Your task to perform on an android device: Search for Italian restaurants on Maps Image 0: 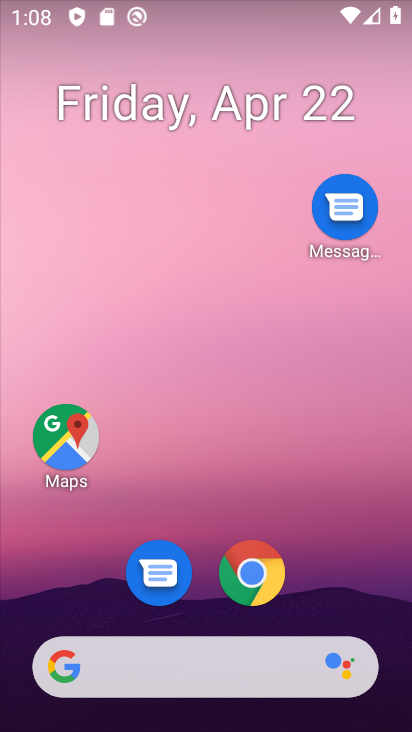
Step 0: click (70, 462)
Your task to perform on an android device: Search for Italian restaurants on Maps Image 1: 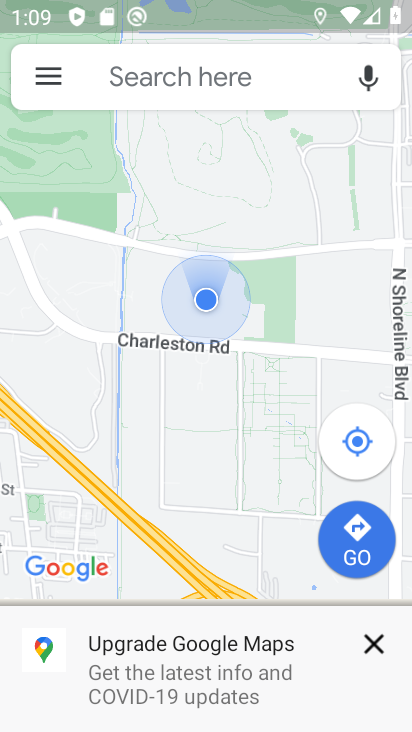
Step 1: click (212, 82)
Your task to perform on an android device: Search for Italian restaurants on Maps Image 2: 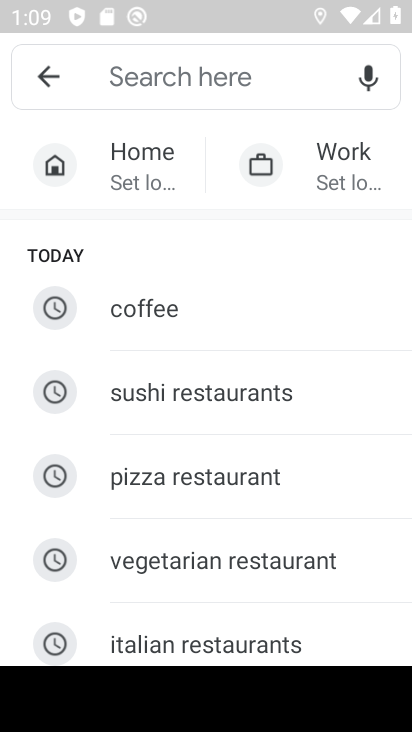
Step 2: type "Italian restaurants"
Your task to perform on an android device: Search for Italian restaurants on Maps Image 3: 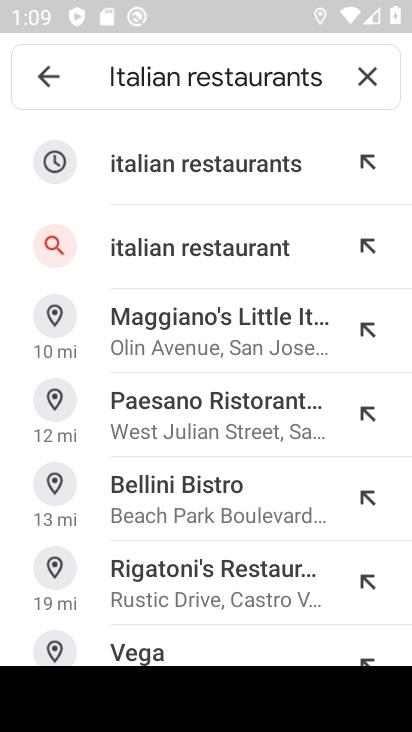
Step 3: click (226, 162)
Your task to perform on an android device: Search for Italian restaurants on Maps Image 4: 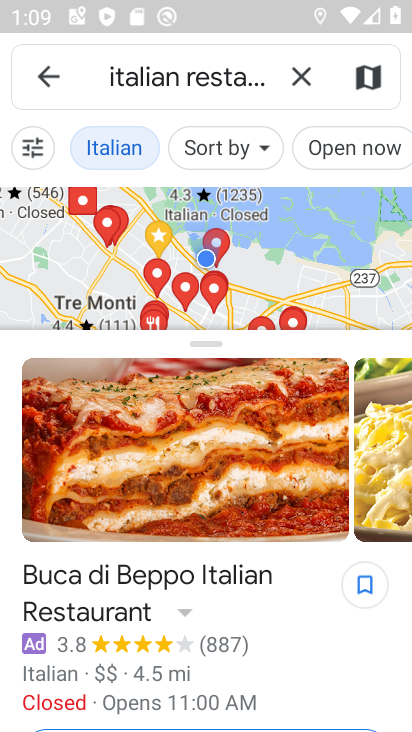
Step 4: task complete